Your task to perform on an android device: open a new tab in the chrome app Image 0: 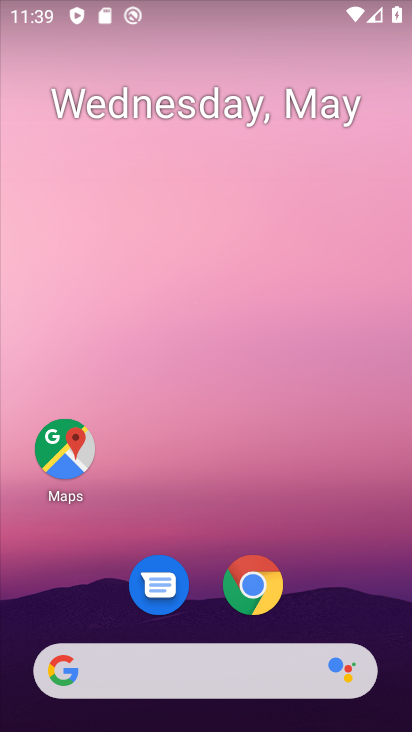
Step 0: click (250, 575)
Your task to perform on an android device: open a new tab in the chrome app Image 1: 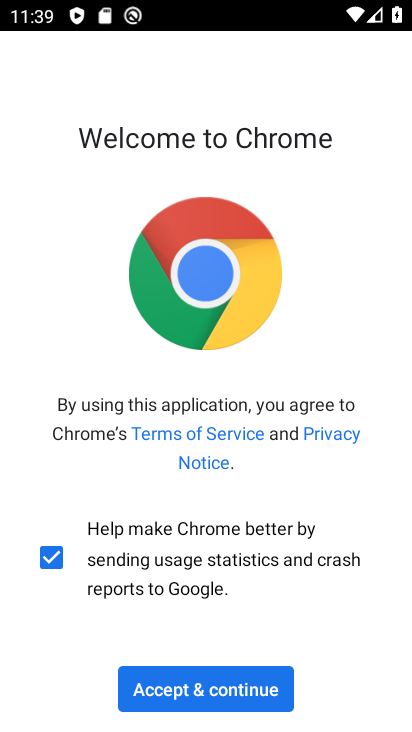
Step 1: click (253, 688)
Your task to perform on an android device: open a new tab in the chrome app Image 2: 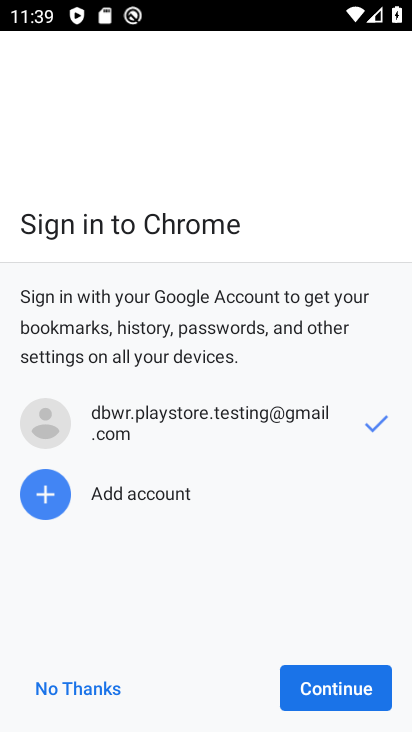
Step 2: click (309, 685)
Your task to perform on an android device: open a new tab in the chrome app Image 3: 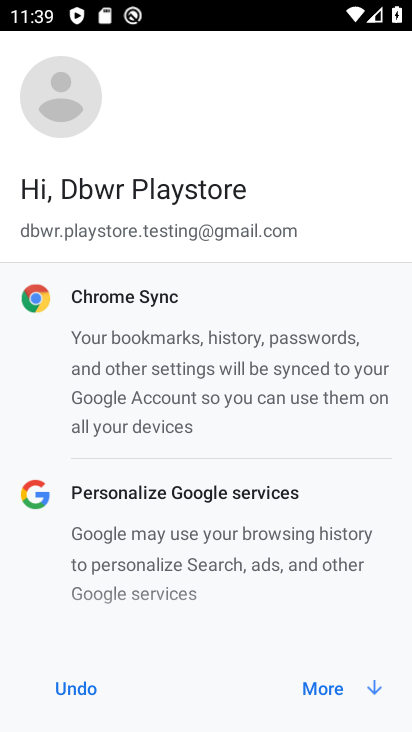
Step 3: click (309, 685)
Your task to perform on an android device: open a new tab in the chrome app Image 4: 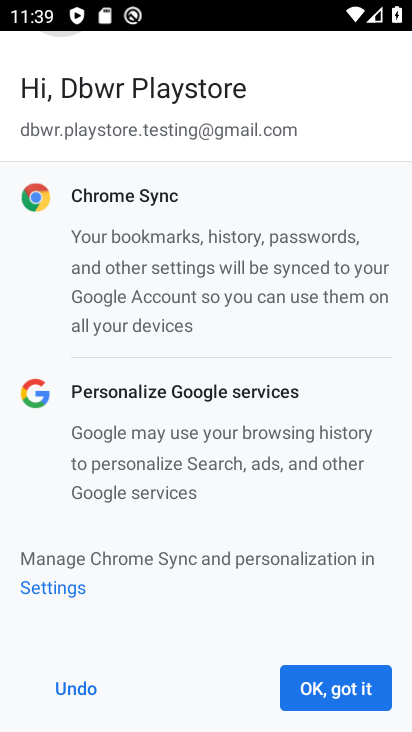
Step 4: click (309, 685)
Your task to perform on an android device: open a new tab in the chrome app Image 5: 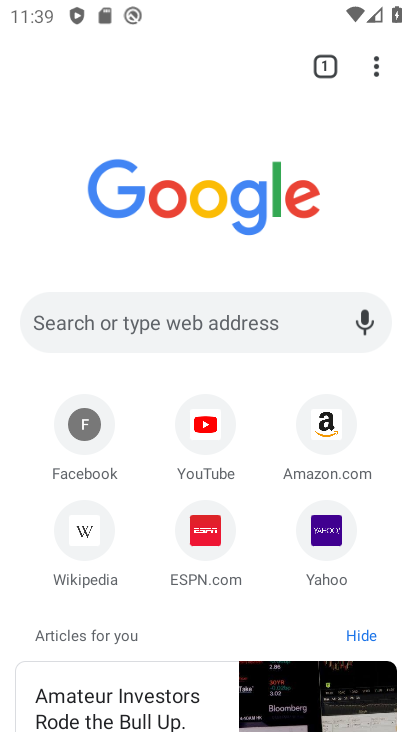
Step 5: click (375, 65)
Your task to perform on an android device: open a new tab in the chrome app Image 6: 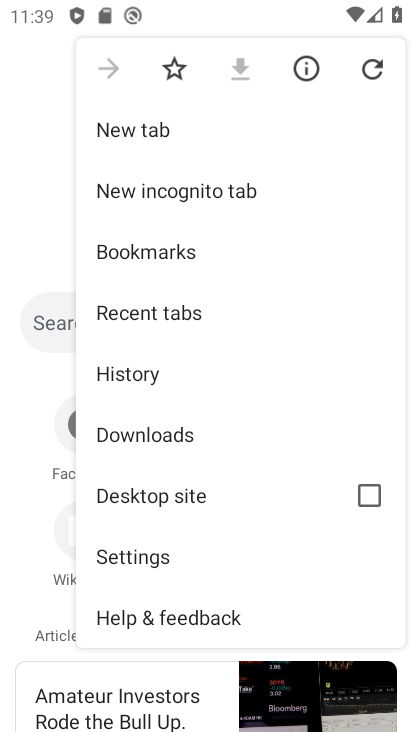
Step 6: click (263, 128)
Your task to perform on an android device: open a new tab in the chrome app Image 7: 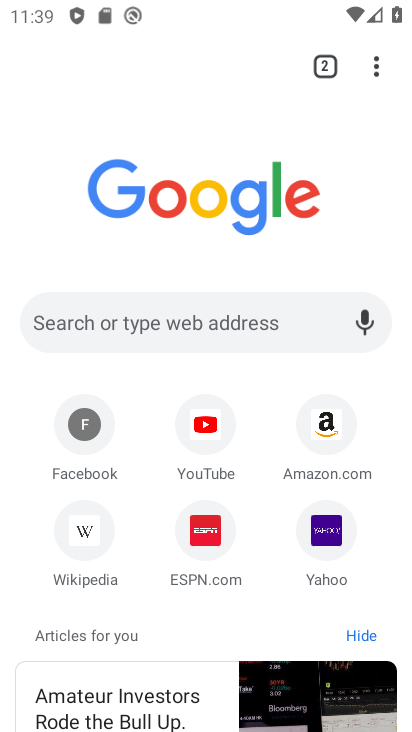
Step 7: task complete